Your task to perform on an android device: show emergency info Image 0: 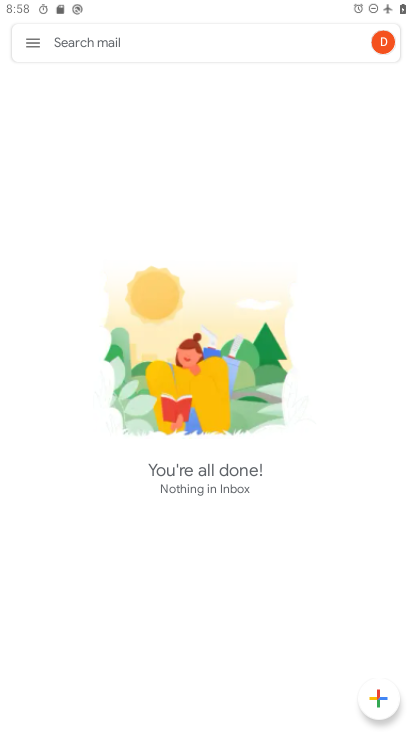
Step 0: press home button
Your task to perform on an android device: show emergency info Image 1: 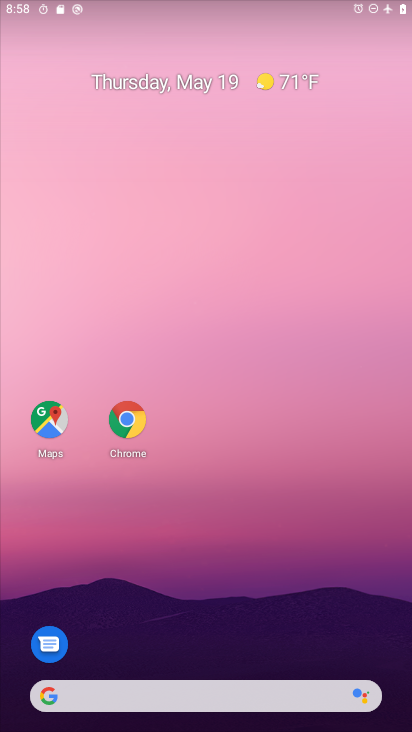
Step 1: drag from (156, 683) to (184, 322)
Your task to perform on an android device: show emergency info Image 2: 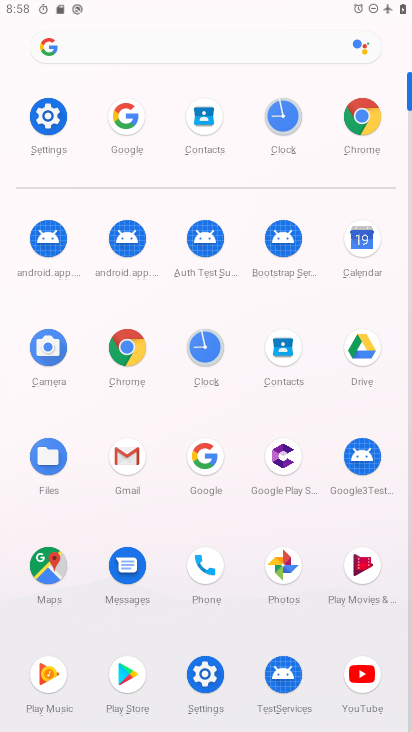
Step 2: click (52, 117)
Your task to perform on an android device: show emergency info Image 3: 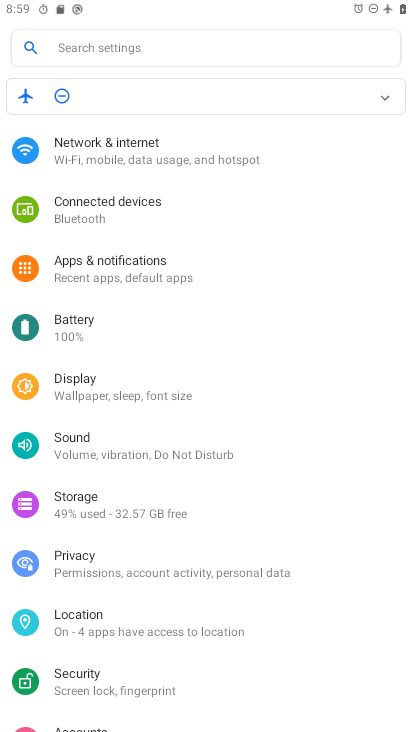
Step 3: drag from (113, 715) to (174, 422)
Your task to perform on an android device: show emergency info Image 4: 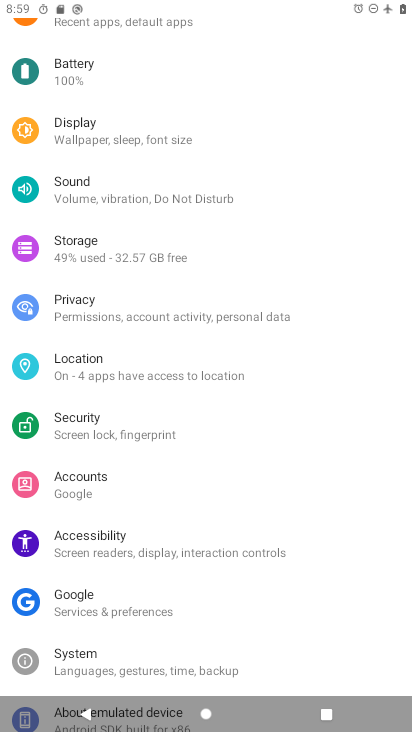
Step 4: drag from (137, 663) to (196, 360)
Your task to perform on an android device: show emergency info Image 5: 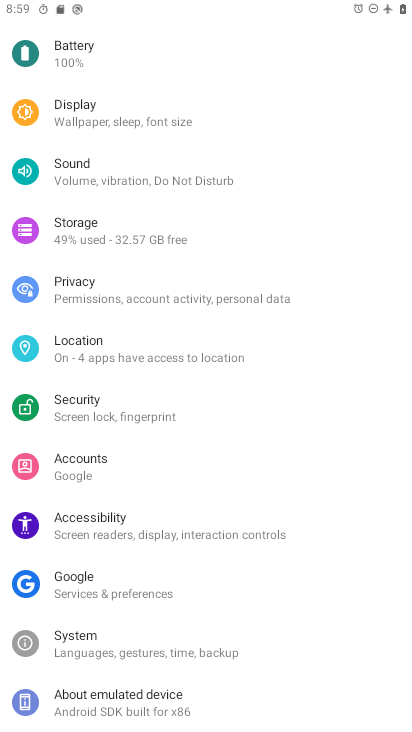
Step 5: click (132, 695)
Your task to perform on an android device: show emergency info Image 6: 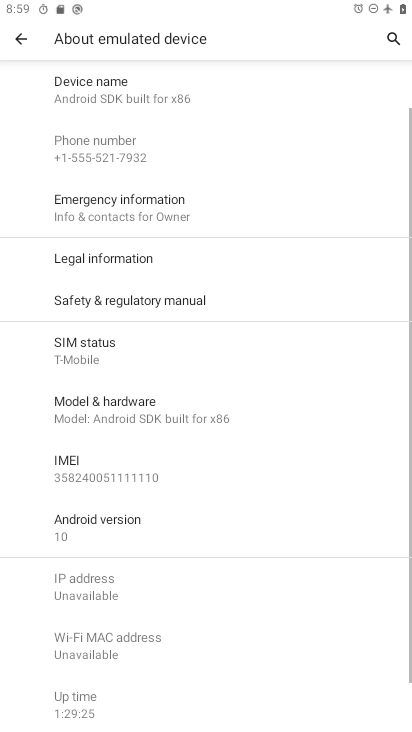
Step 6: drag from (116, 109) to (148, 460)
Your task to perform on an android device: show emergency info Image 7: 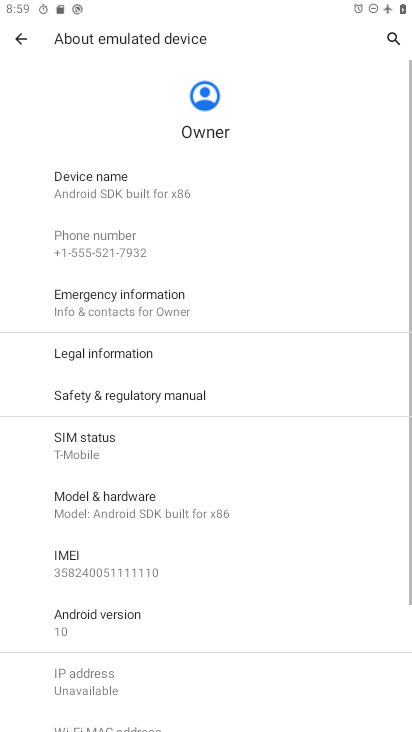
Step 7: click (87, 313)
Your task to perform on an android device: show emergency info Image 8: 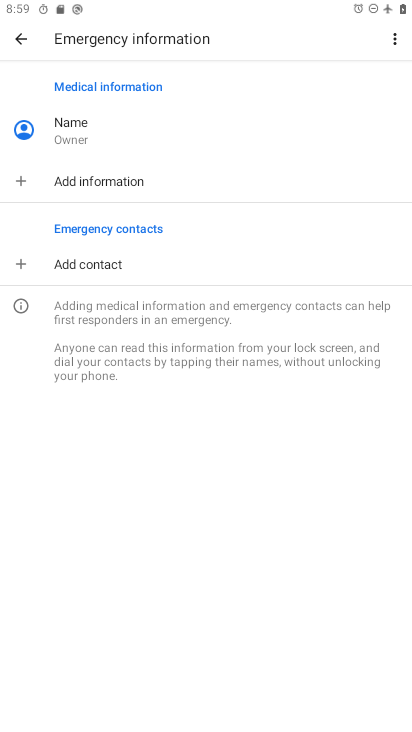
Step 8: task complete